Your task to perform on an android device: check battery use Image 0: 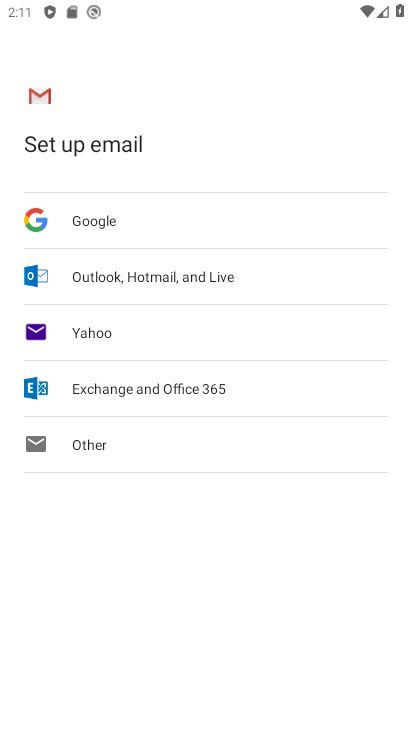
Step 0: press home button
Your task to perform on an android device: check battery use Image 1: 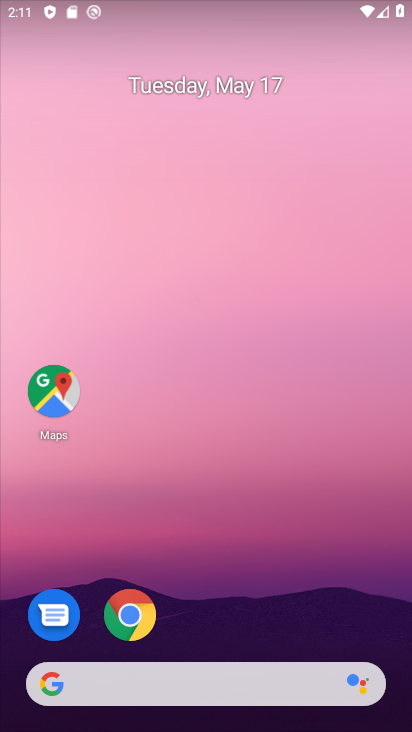
Step 1: drag from (208, 646) to (266, 63)
Your task to perform on an android device: check battery use Image 2: 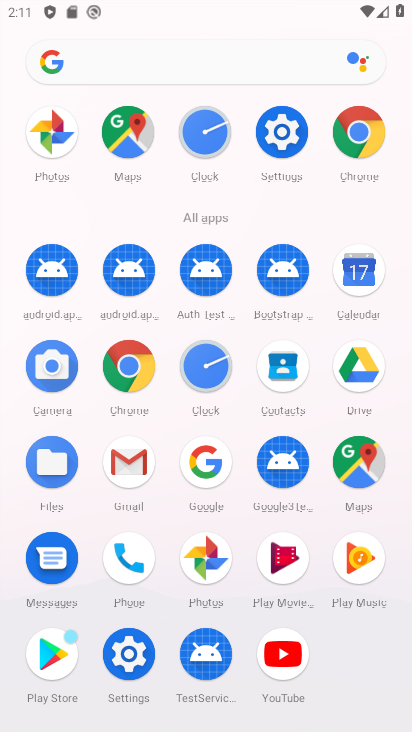
Step 2: click (280, 124)
Your task to perform on an android device: check battery use Image 3: 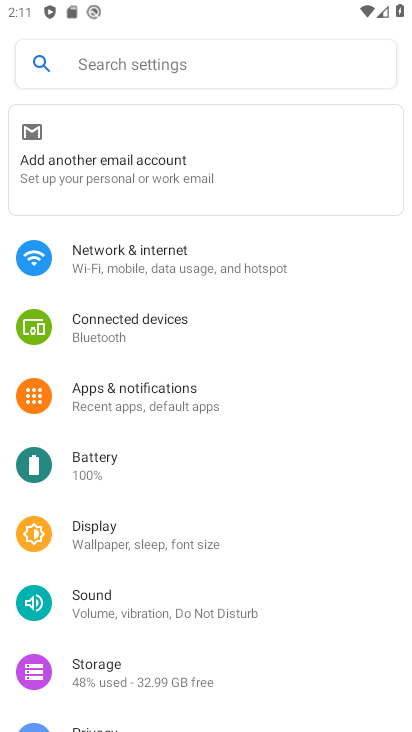
Step 3: click (131, 461)
Your task to perform on an android device: check battery use Image 4: 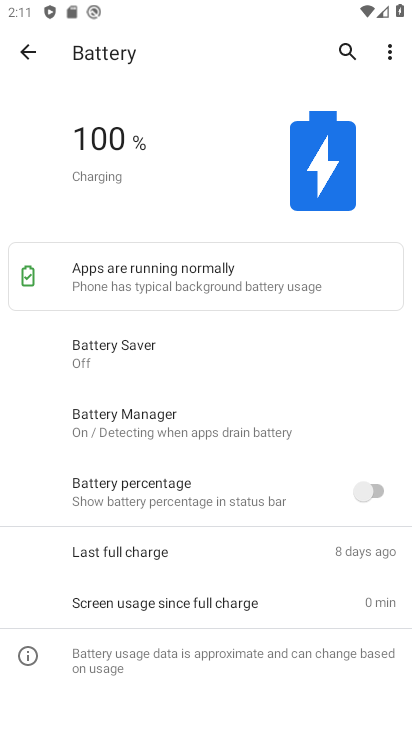
Step 4: click (390, 53)
Your task to perform on an android device: check battery use Image 5: 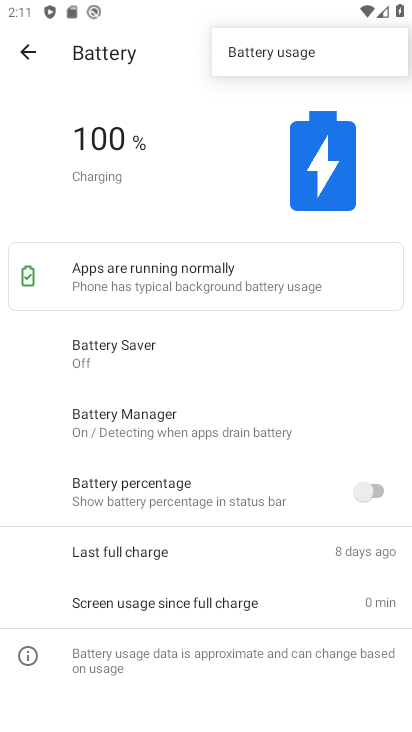
Step 5: click (294, 52)
Your task to perform on an android device: check battery use Image 6: 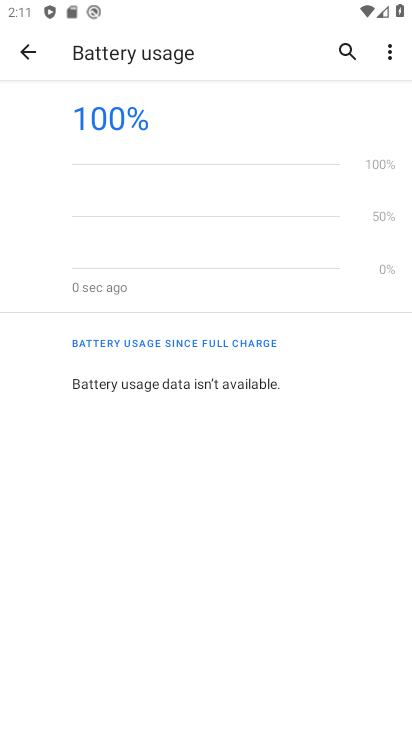
Step 6: task complete